Your task to perform on an android device: toggle pop-ups in chrome Image 0: 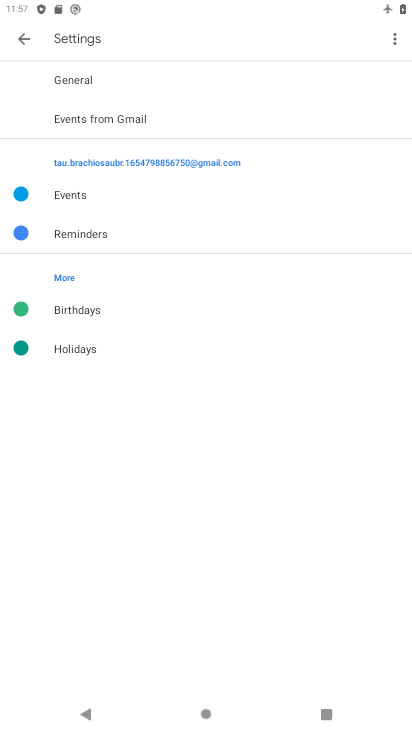
Step 0: press home button
Your task to perform on an android device: toggle pop-ups in chrome Image 1: 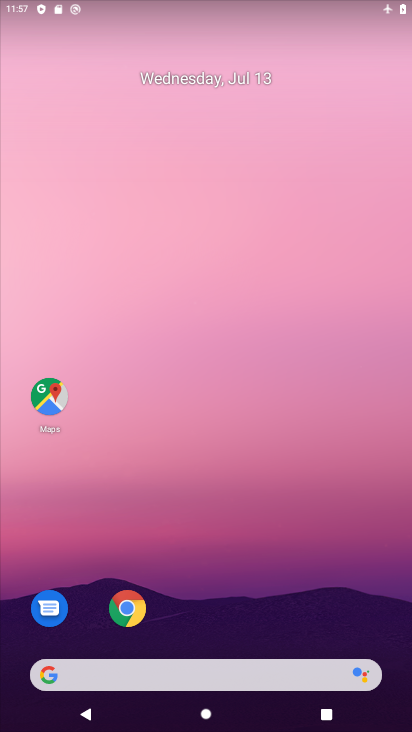
Step 1: click (128, 615)
Your task to perform on an android device: toggle pop-ups in chrome Image 2: 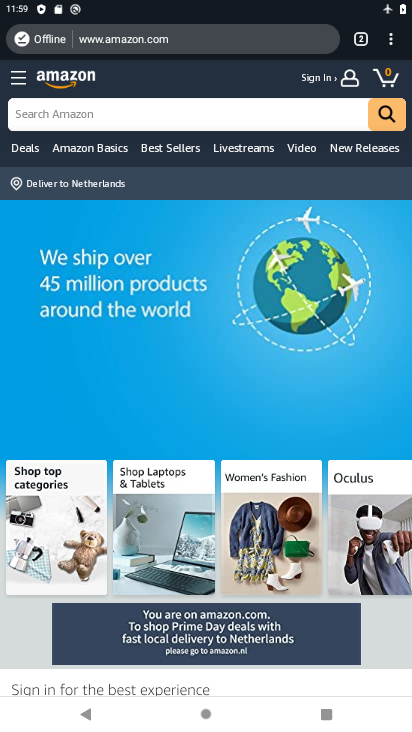
Step 2: click (388, 42)
Your task to perform on an android device: toggle pop-ups in chrome Image 3: 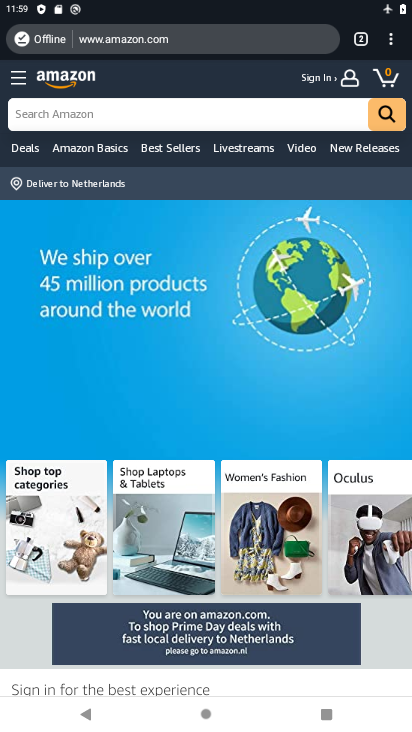
Step 3: drag from (375, 13) to (332, 387)
Your task to perform on an android device: toggle pop-ups in chrome Image 4: 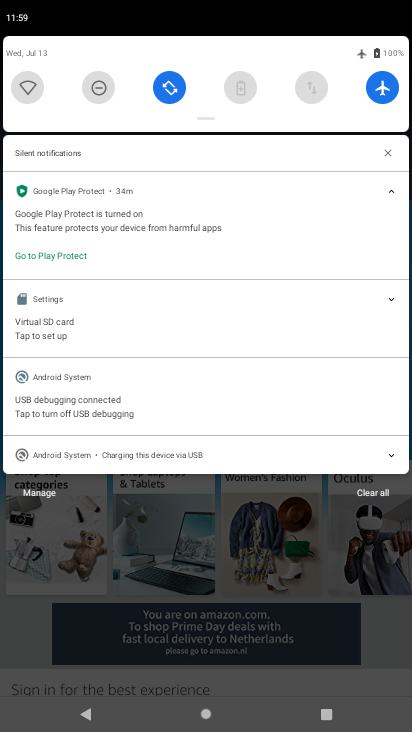
Step 4: click (388, 94)
Your task to perform on an android device: toggle pop-ups in chrome Image 5: 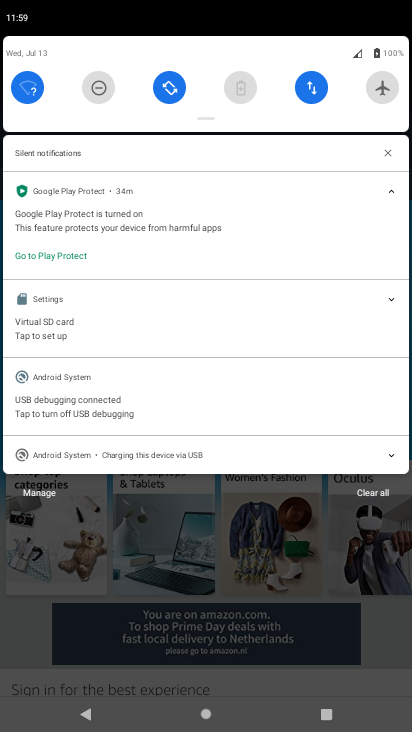
Step 5: task complete